Your task to perform on an android device: see creations saved in the google photos Image 0: 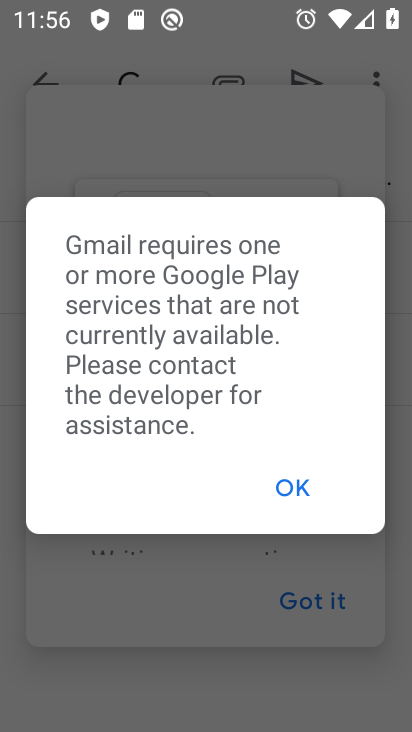
Step 0: press home button
Your task to perform on an android device: see creations saved in the google photos Image 1: 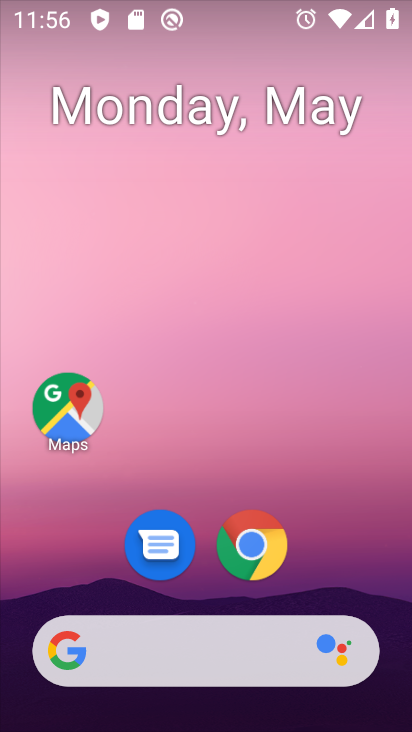
Step 1: drag from (322, 437) to (322, 157)
Your task to perform on an android device: see creations saved in the google photos Image 2: 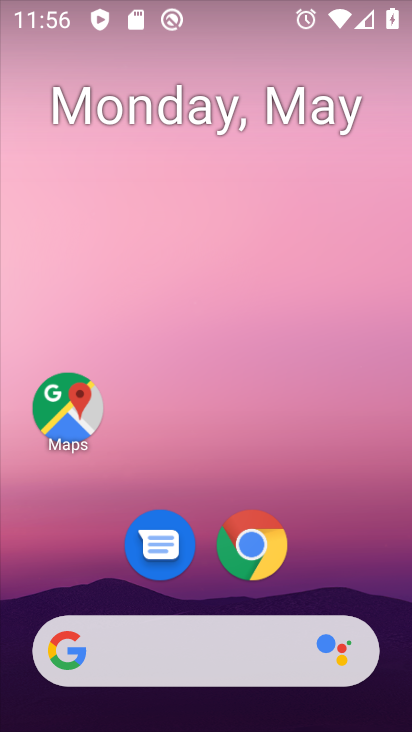
Step 2: drag from (346, 558) to (298, 66)
Your task to perform on an android device: see creations saved in the google photos Image 3: 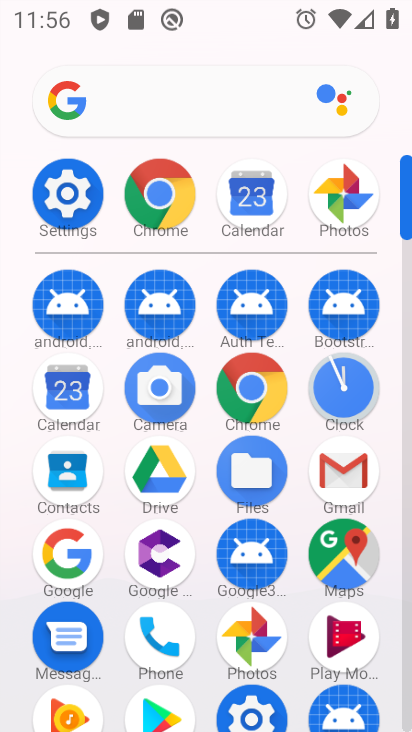
Step 3: click (259, 664)
Your task to perform on an android device: see creations saved in the google photos Image 4: 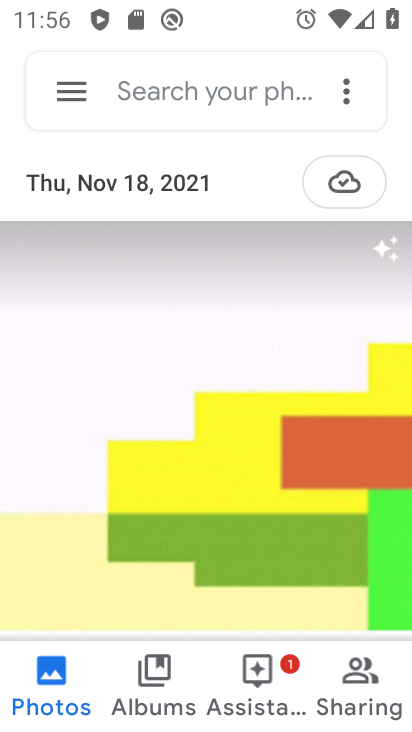
Step 4: click (75, 76)
Your task to perform on an android device: see creations saved in the google photos Image 5: 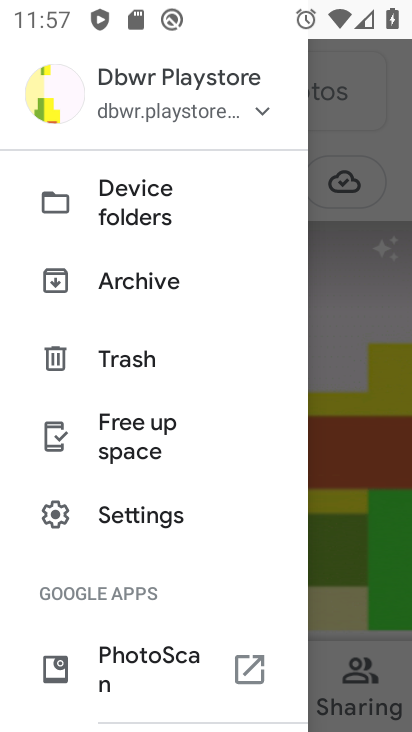
Step 5: click (329, 347)
Your task to perform on an android device: see creations saved in the google photos Image 6: 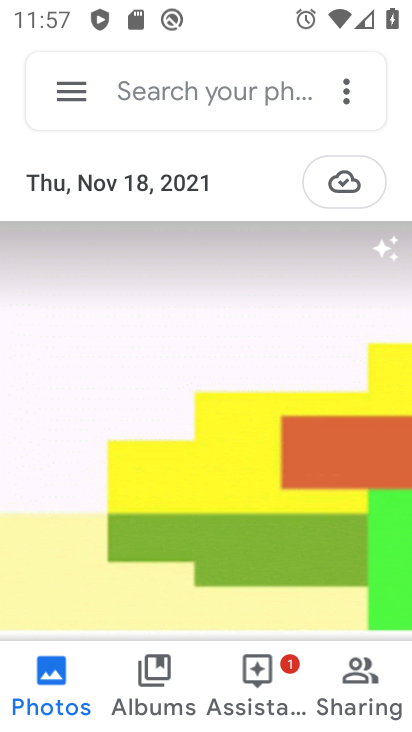
Step 6: task complete